Your task to perform on an android device: Open calendar and show me the fourth week of next month Image 0: 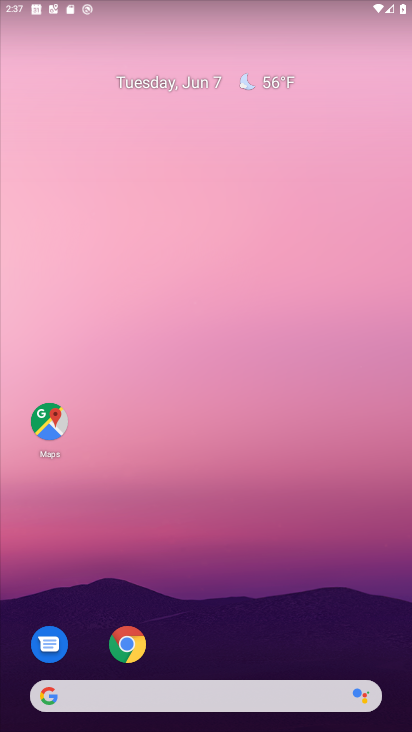
Step 0: click (215, 64)
Your task to perform on an android device: Open calendar and show me the fourth week of next month Image 1: 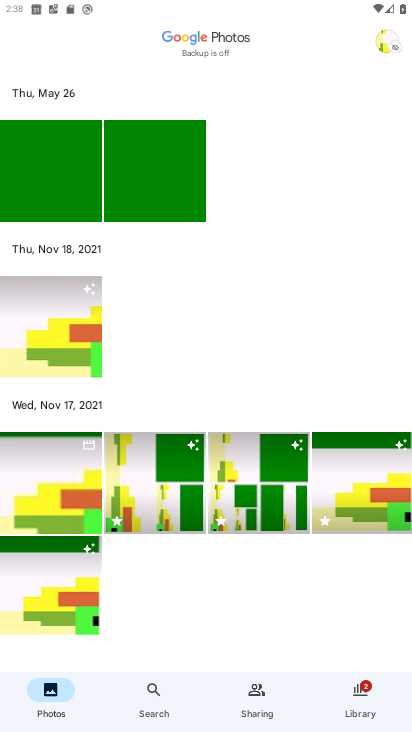
Step 1: press home button
Your task to perform on an android device: Open calendar and show me the fourth week of next month Image 2: 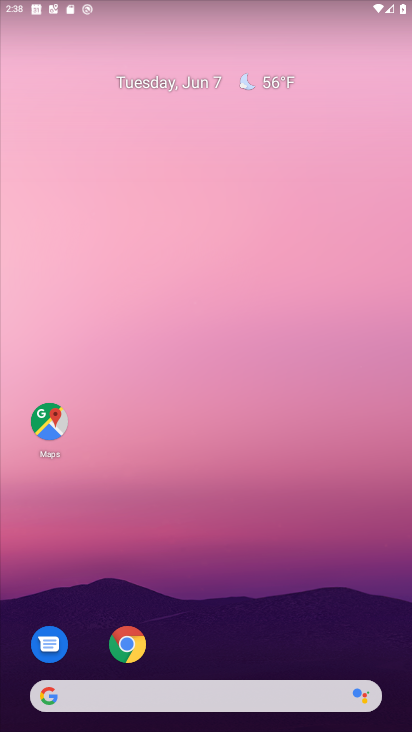
Step 2: drag from (215, 657) to (228, 487)
Your task to perform on an android device: Open calendar and show me the fourth week of next month Image 3: 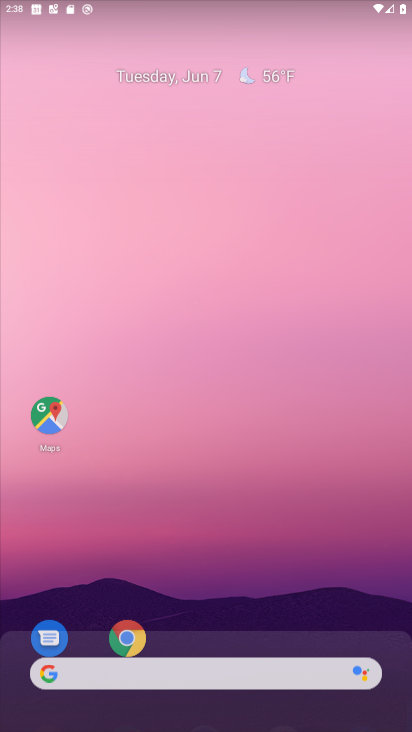
Step 3: drag from (250, 99) to (253, 41)
Your task to perform on an android device: Open calendar and show me the fourth week of next month Image 4: 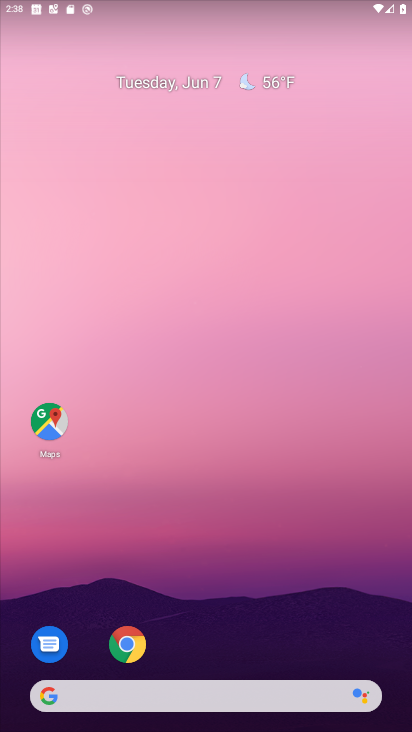
Step 4: drag from (220, 532) to (242, 2)
Your task to perform on an android device: Open calendar and show me the fourth week of next month Image 5: 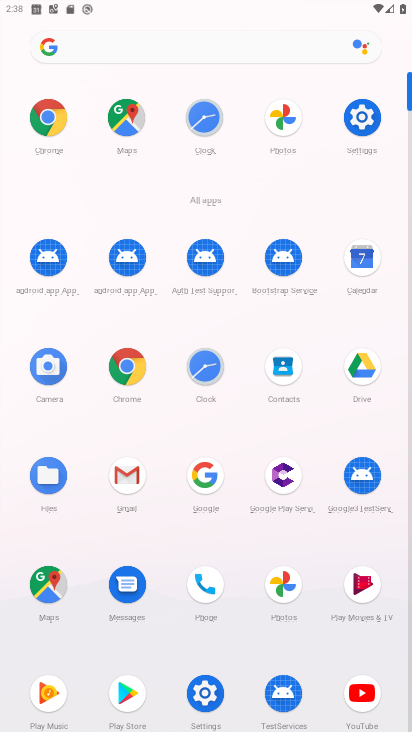
Step 5: click (361, 254)
Your task to perform on an android device: Open calendar and show me the fourth week of next month Image 6: 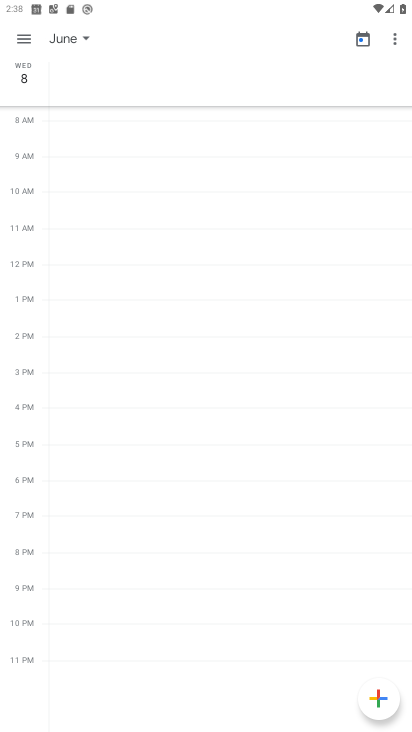
Step 6: click (81, 33)
Your task to perform on an android device: Open calendar and show me the fourth week of next month Image 7: 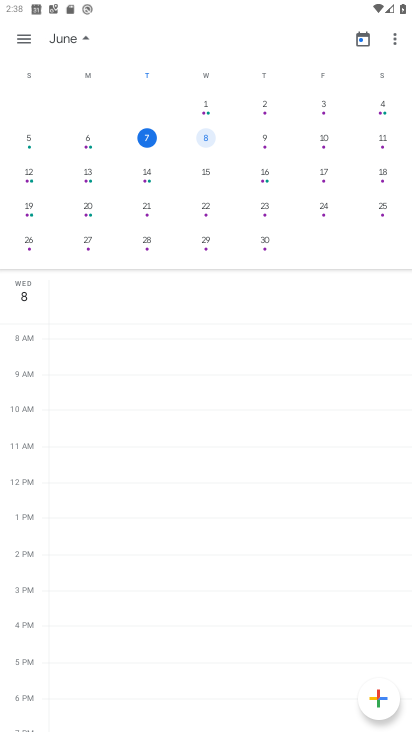
Step 7: drag from (377, 166) to (22, 175)
Your task to perform on an android device: Open calendar and show me the fourth week of next month Image 8: 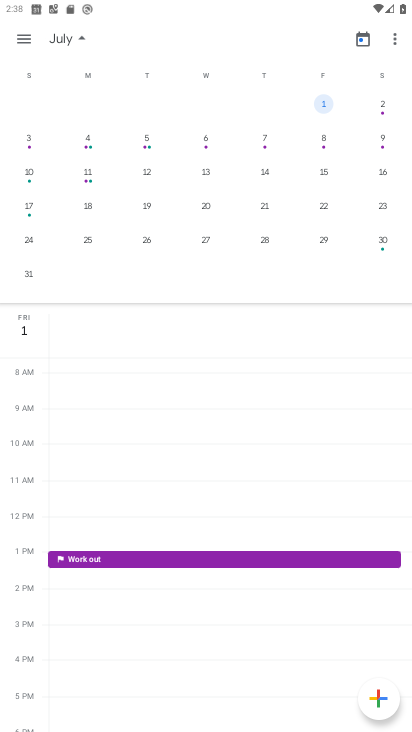
Step 8: click (30, 245)
Your task to perform on an android device: Open calendar and show me the fourth week of next month Image 9: 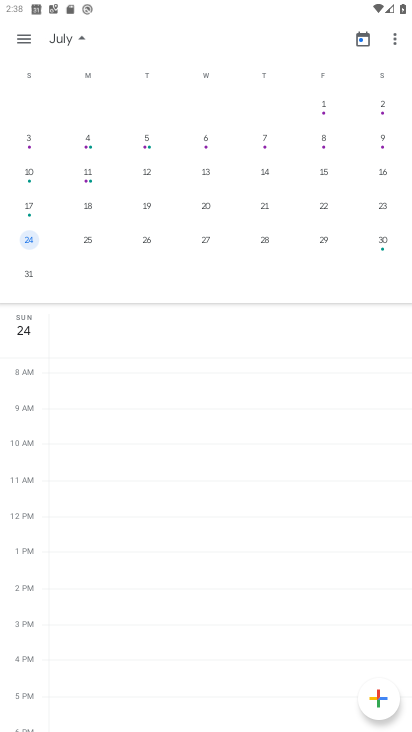
Step 9: click (78, 34)
Your task to perform on an android device: Open calendar and show me the fourth week of next month Image 10: 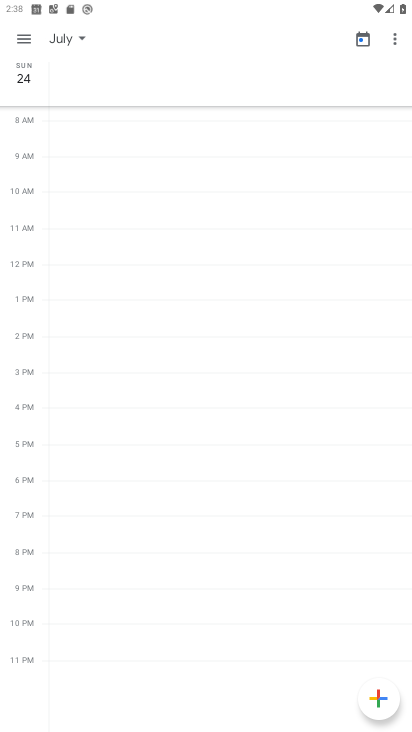
Step 10: click (37, 85)
Your task to perform on an android device: Open calendar and show me the fourth week of next month Image 11: 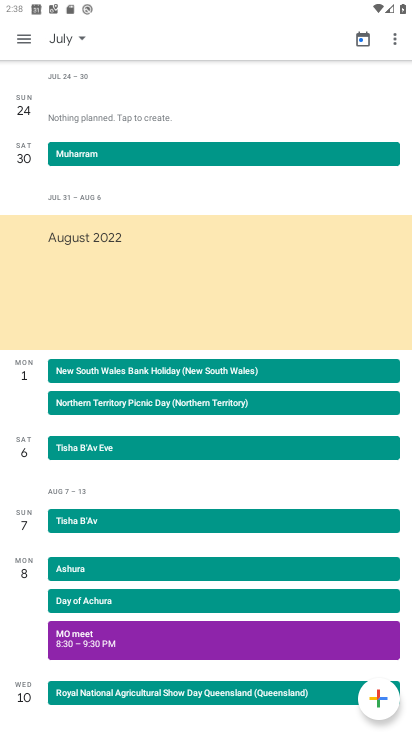
Step 11: task complete